Your task to perform on an android device: Go to wifi settings Image 0: 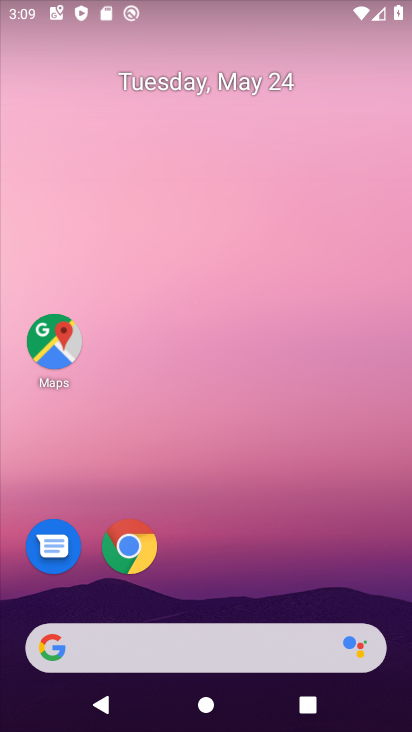
Step 0: drag from (268, 504) to (210, 31)
Your task to perform on an android device: Go to wifi settings Image 1: 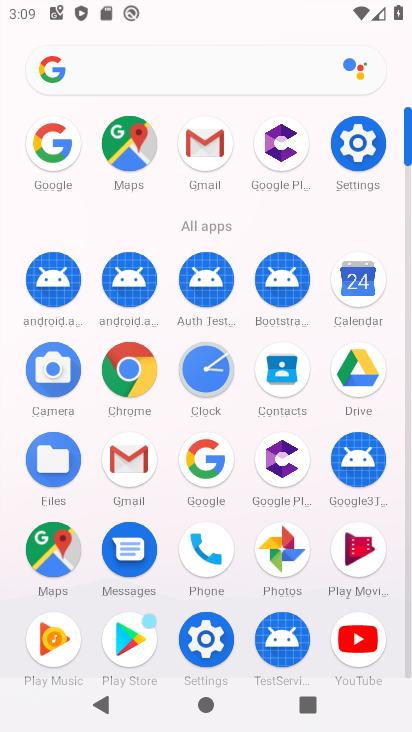
Step 1: click (362, 165)
Your task to perform on an android device: Go to wifi settings Image 2: 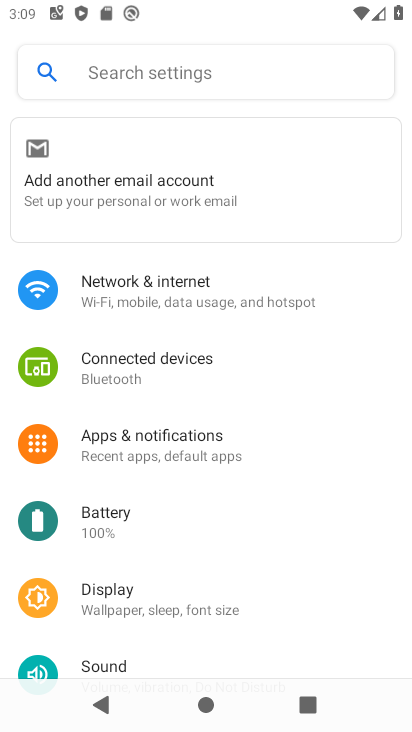
Step 2: click (227, 301)
Your task to perform on an android device: Go to wifi settings Image 3: 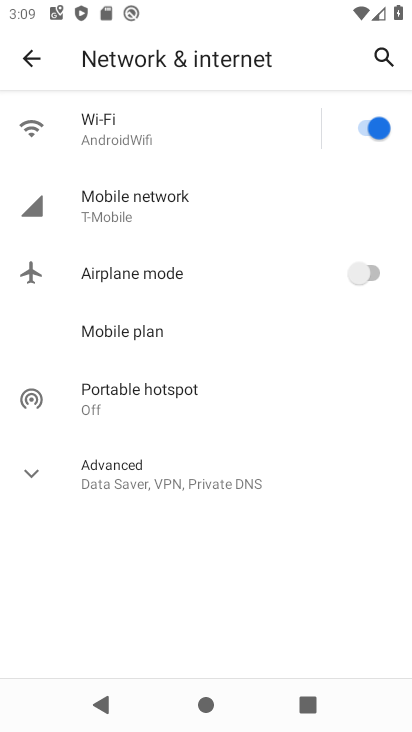
Step 3: click (206, 131)
Your task to perform on an android device: Go to wifi settings Image 4: 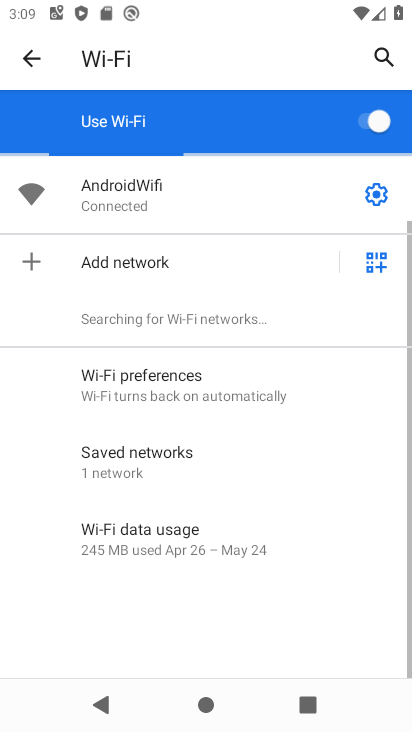
Step 4: task complete